Your task to perform on an android device: Open display settings Image 0: 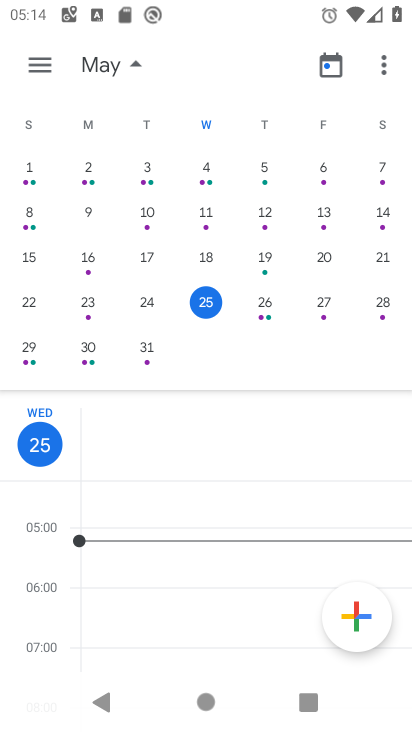
Step 0: press home button
Your task to perform on an android device: Open display settings Image 1: 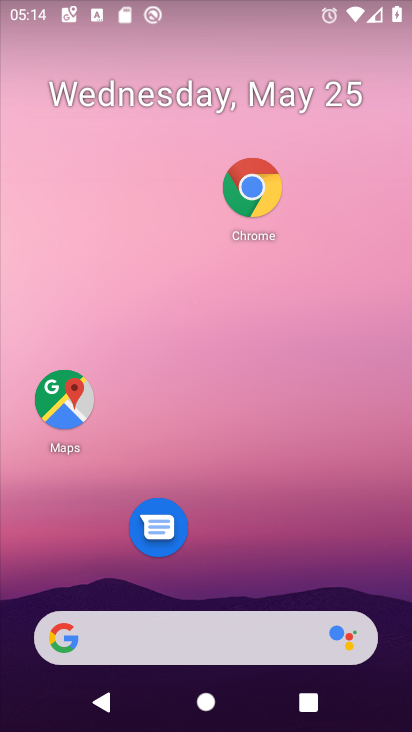
Step 1: drag from (260, 573) to (269, 83)
Your task to perform on an android device: Open display settings Image 2: 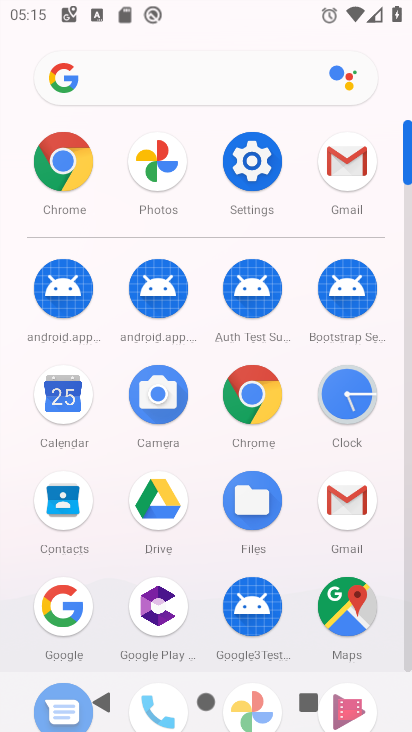
Step 2: click (255, 163)
Your task to perform on an android device: Open display settings Image 3: 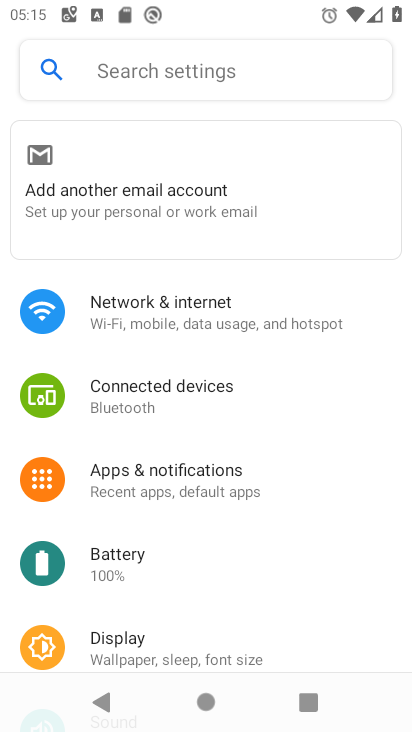
Step 3: drag from (312, 560) to (299, 257)
Your task to perform on an android device: Open display settings Image 4: 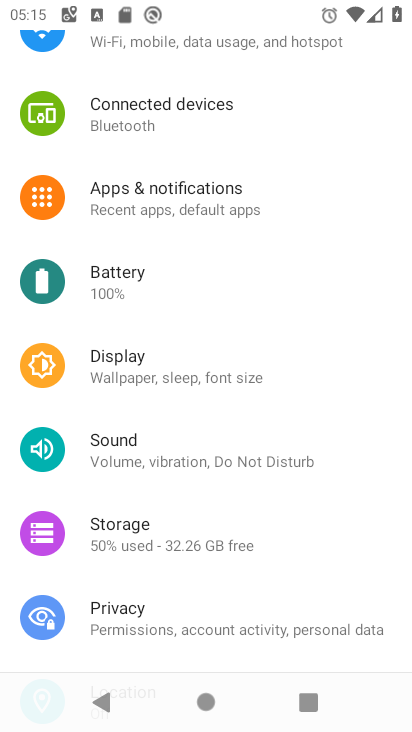
Step 4: click (169, 373)
Your task to perform on an android device: Open display settings Image 5: 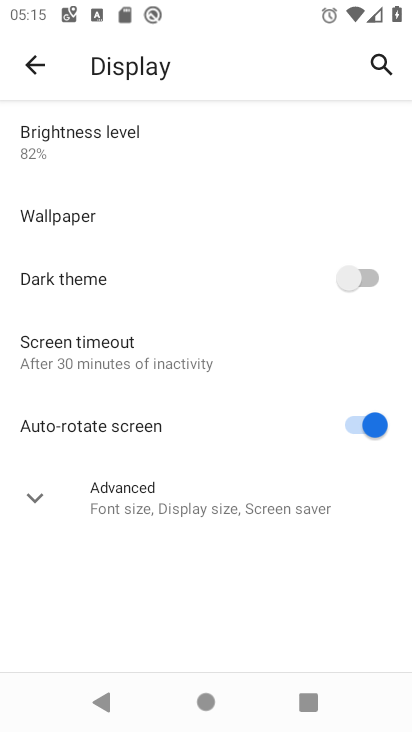
Step 5: click (169, 497)
Your task to perform on an android device: Open display settings Image 6: 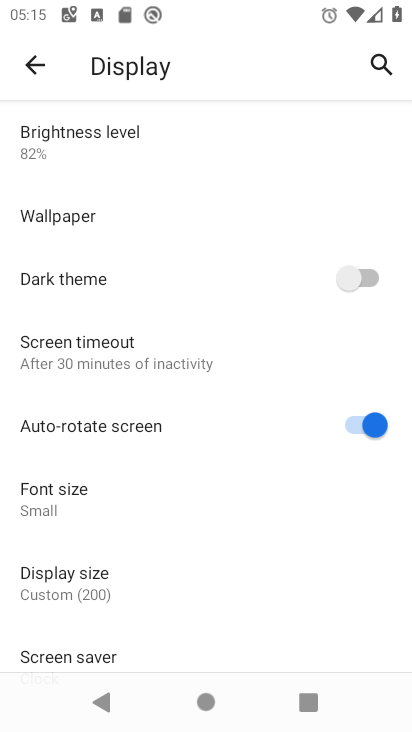
Step 6: task complete